Your task to perform on an android device: Search for seafood restaurants on Google Maps Image 0: 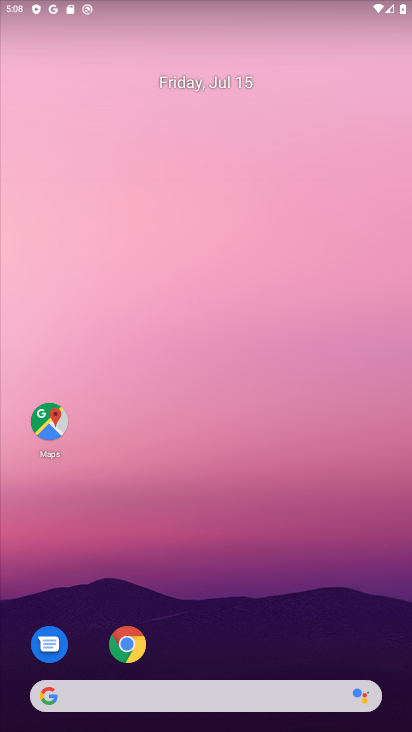
Step 0: click (60, 421)
Your task to perform on an android device: Search for seafood restaurants on Google Maps Image 1: 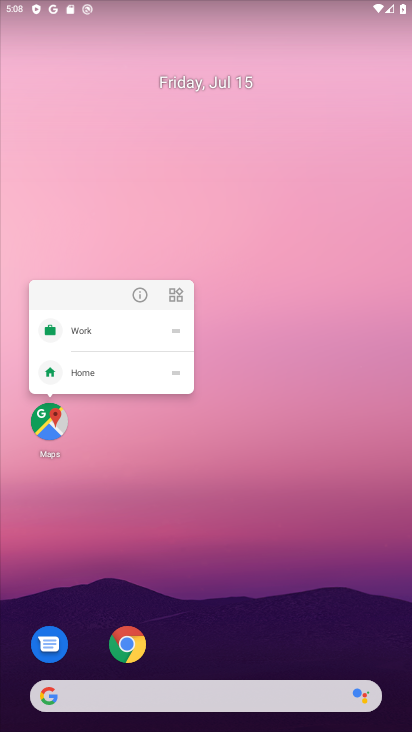
Step 1: click (53, 422)
Your task to perform on an android device: Search for seafood restaurants on Google Maps Image 2: 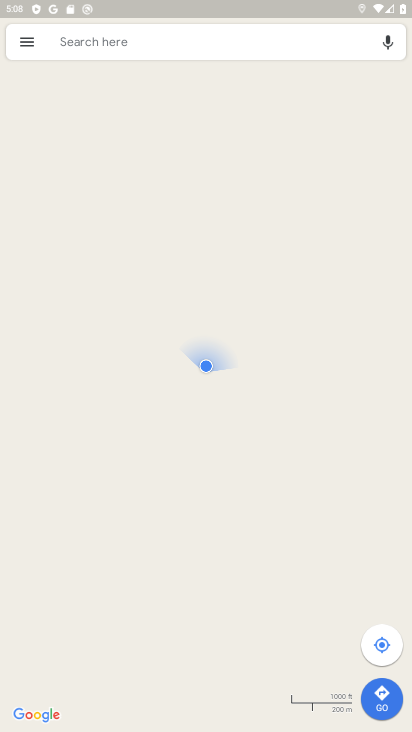
Step 2: click (210, 40)
Your task to perform on an android device: Search for seafood restaurants on Google Maps Image 3: 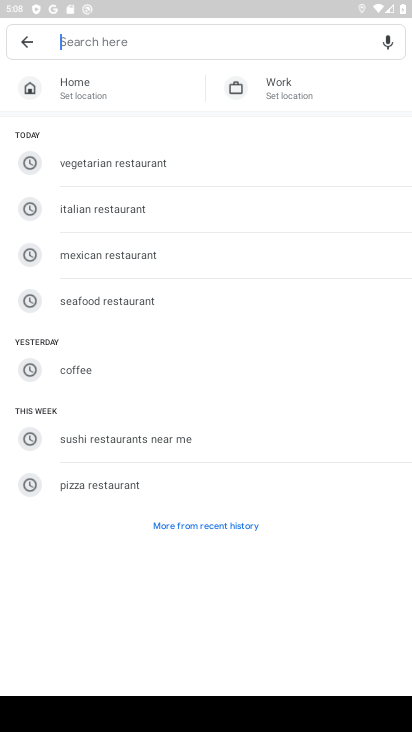
Step 3: click (105, 312)
Your task to perform on an android device: Search for seafood restaurants on Google Maps Image 4: 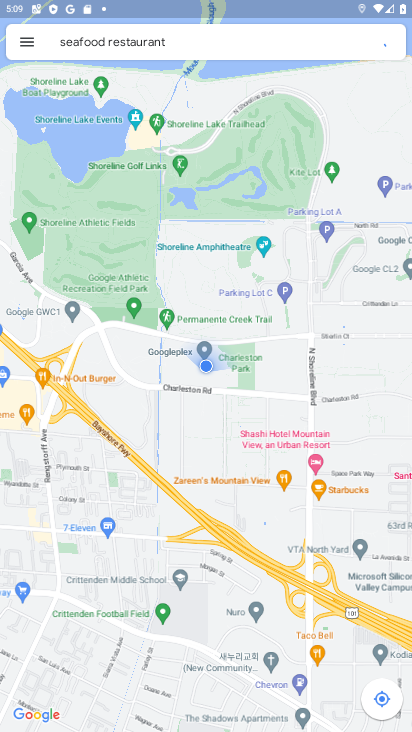
Step 4: task complete